Your task to perform on an android device: open app "Life360: Find Family & Friends" (install if not already installed), go to login, and select forgot password Image 0: 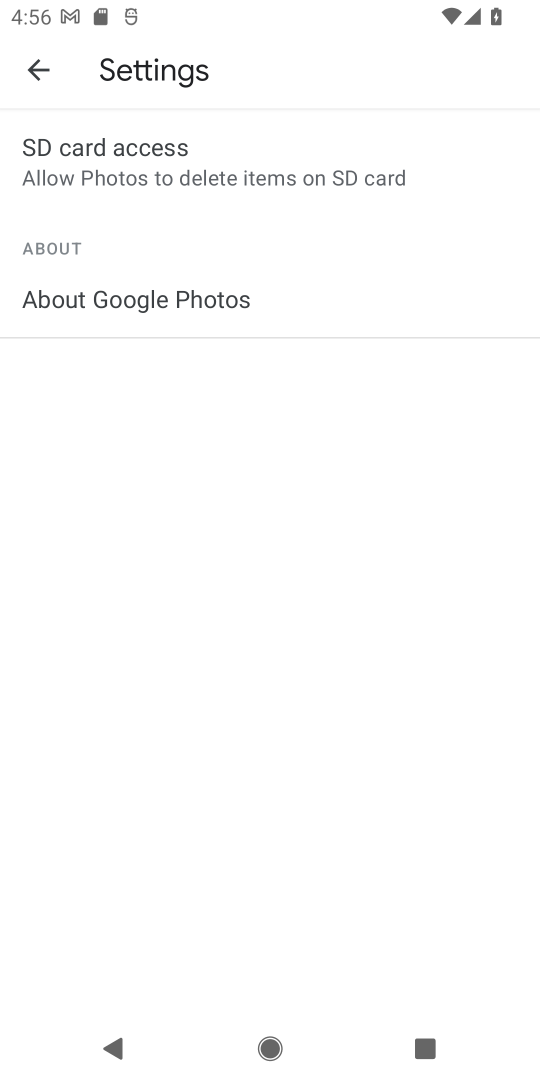
Step 0: press home button
Your task to perform on an android device: open app "Life360: Find Family & Friends" (install if not already installed), go to login, and select forgot password Image 1: 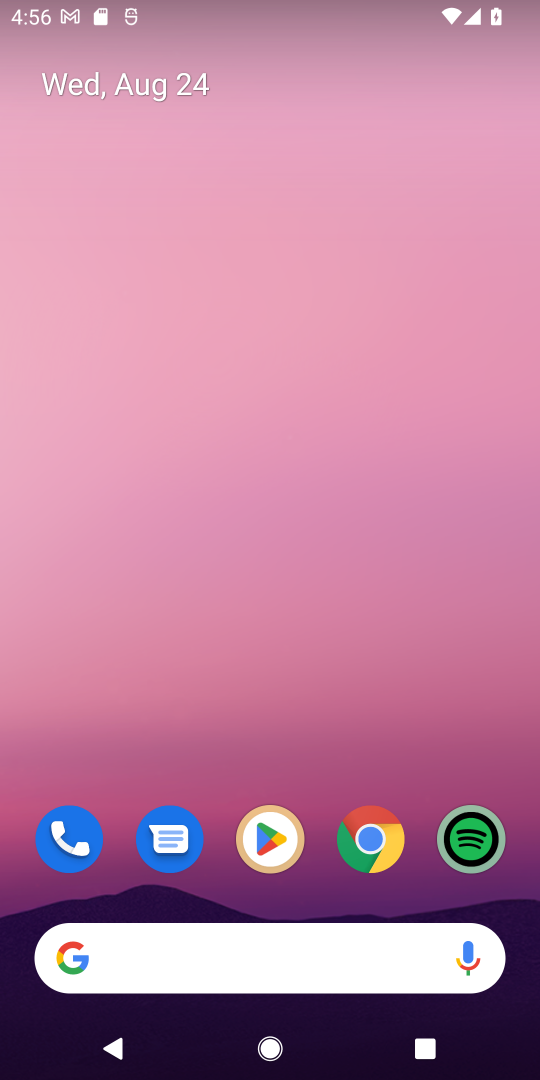
Step 1: click (273, 829)
Your task to perform on an android device: open app "Life360: Find Family & Friends" (install if not already installed), go to login, and select forgot password Image 2: 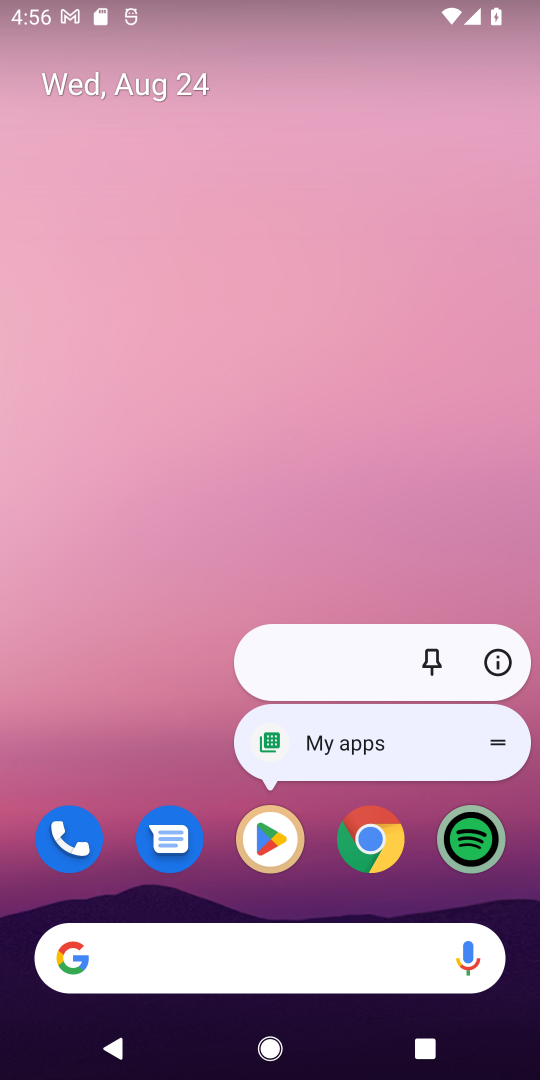
Step 2: click (273, 833)
Your task to perform on an android device: open app "Life360: Find Family & Friends" (install if not already installed), go to login, and select forgot password Image 3: 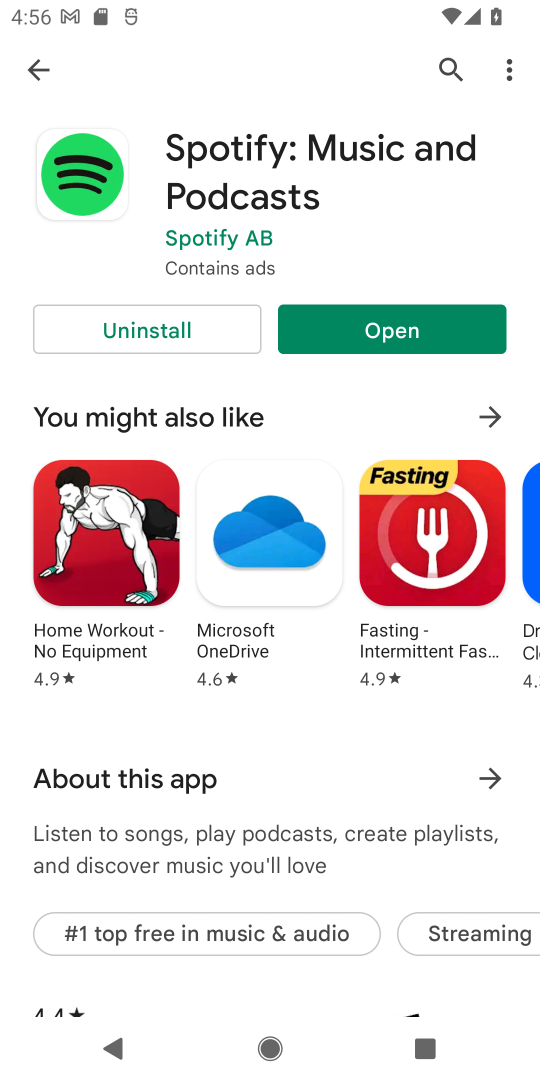
Step 3: click (443, 65)
Your task to perform on an android device: open app "Life360: Find Family & Friends" (install if not already installed), go to login, and select forgot password Image 4: 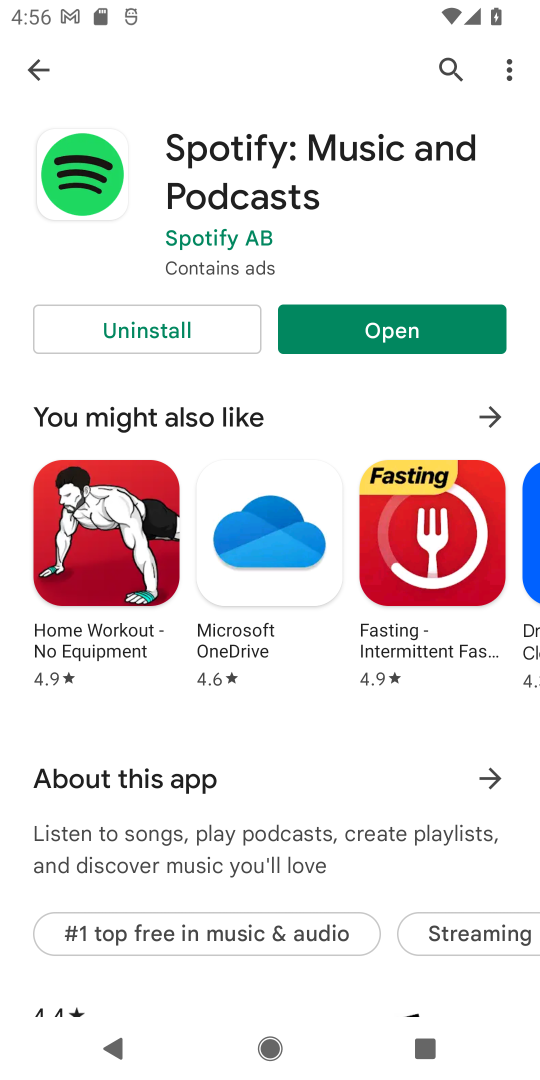
Step 4: click (446, 64)
Your task to perform on an android device: open app "Life360: Find Family & Friends" (install if not already installed), go to login, and select forgot password Image 5: 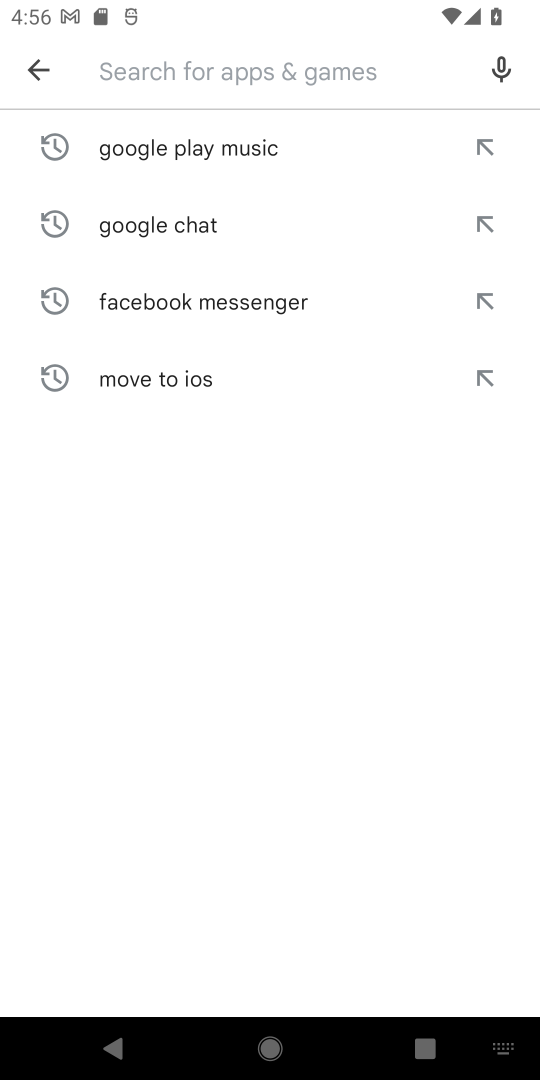
Step 5: type "Life360: Find Family & Friends"
Your task to perform on an android device: open app "Life360: Find Family & Friends" (install if not already installed), go to login, and select forgot password Image 6: 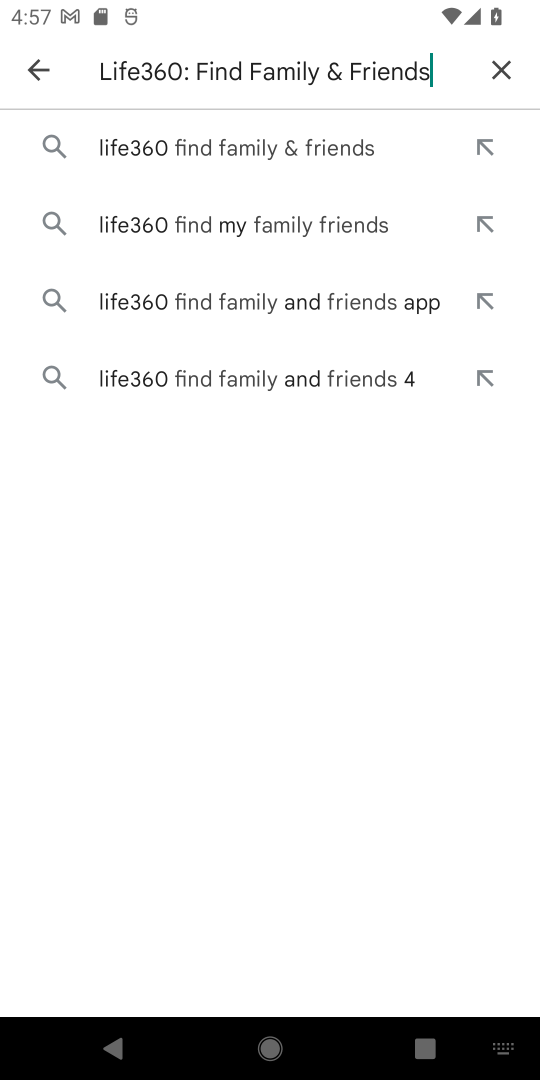
Step 6: click (218, 153)
Your task to perform on an android device: open app "Life360: Find Family & Friends" (install if not already installed), go to login, and select forgot password Image 7: 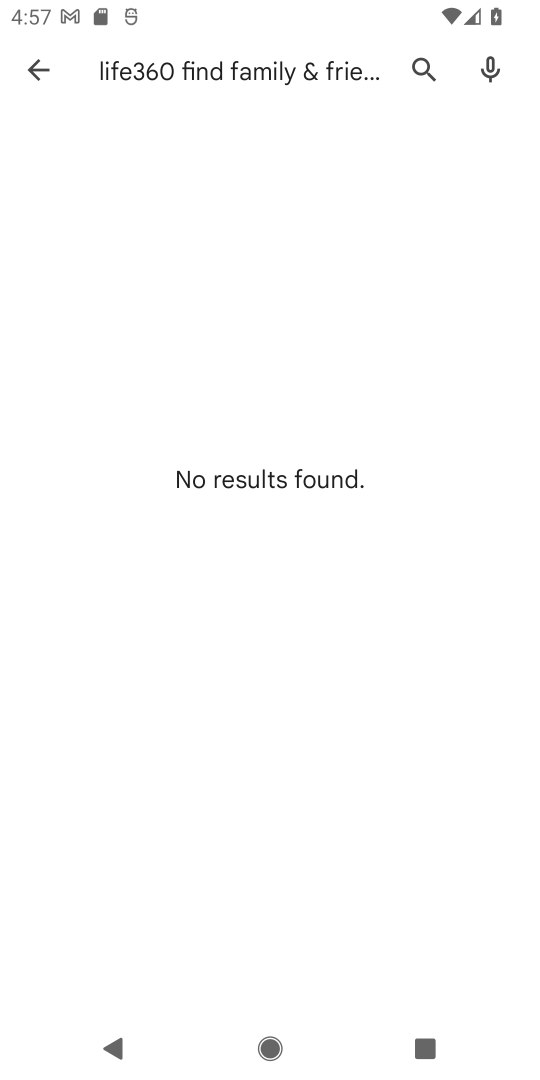
Step 7: click (422, 60)
Your task to perform on an android device: open app "Life360: Find Family & Friends" (install if not already installed), go to login, and select forgot password Image 8: 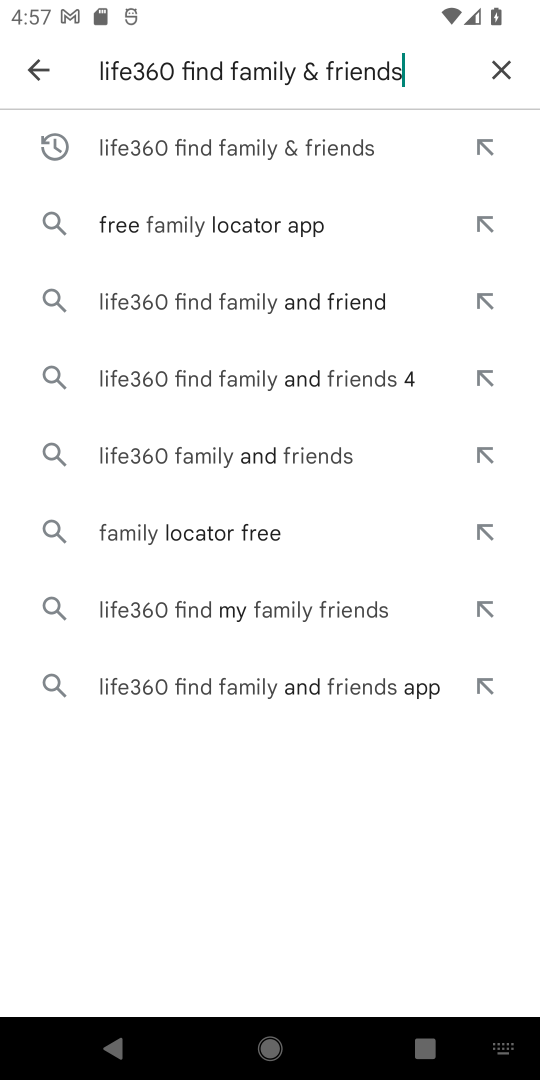
Step 8: click (288, 148)
Your task to perform on an android device: open app "Life360: Find Family & Friends" (install if not already installed), go to login, and select forgot password Image 9: 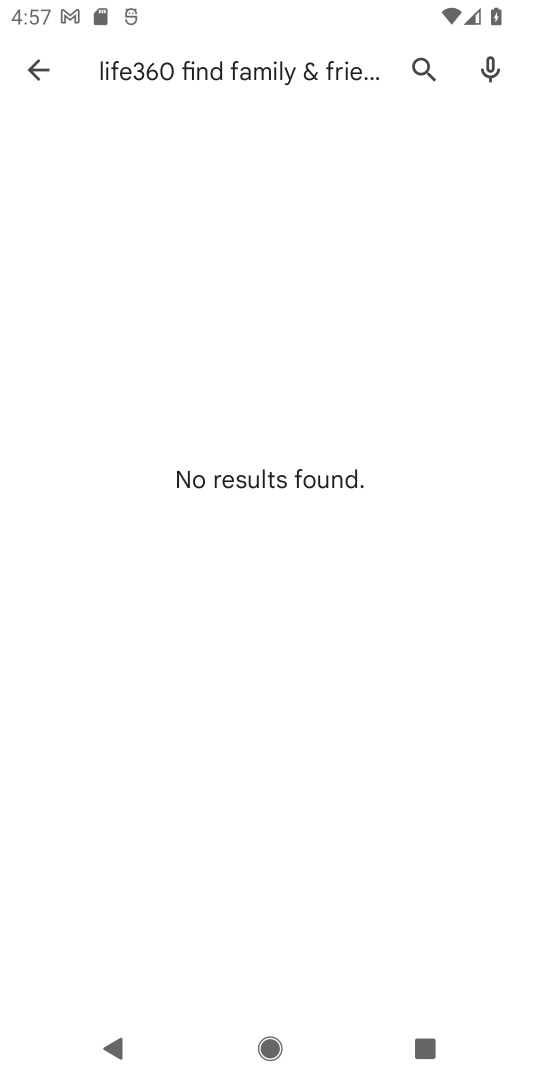
Step 9: task complete